Your task to perform on an android device: Go to wifi settings Image 0: 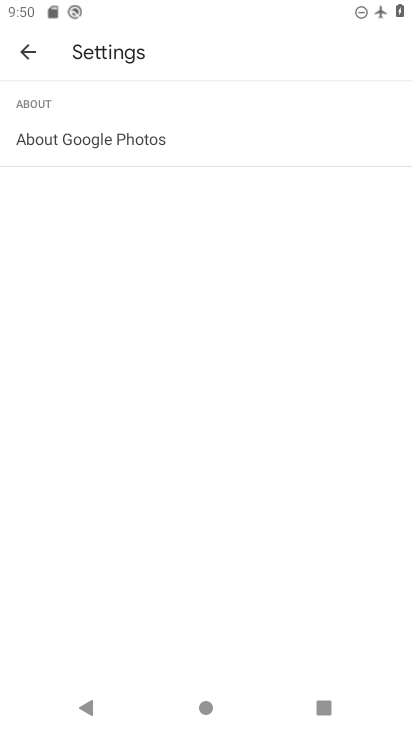
Step 0: drag from (253, 6) to (280, 408)
Your task to perform on an android device: Go to wifi settings Image 1: 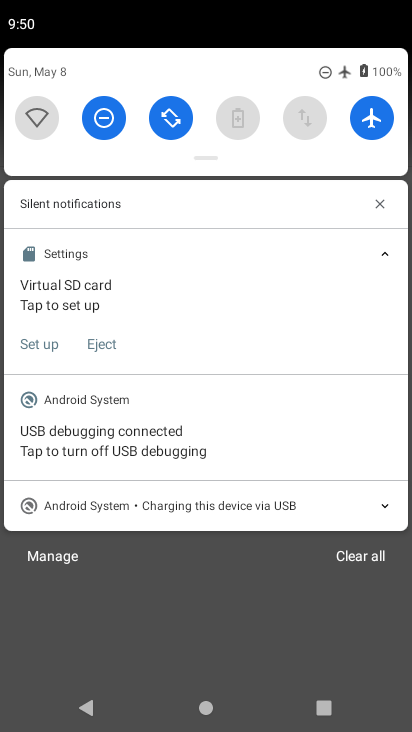
Step 1: click (379, 113)
Your task to perform on an android device: Go to wifi settings Image 2: 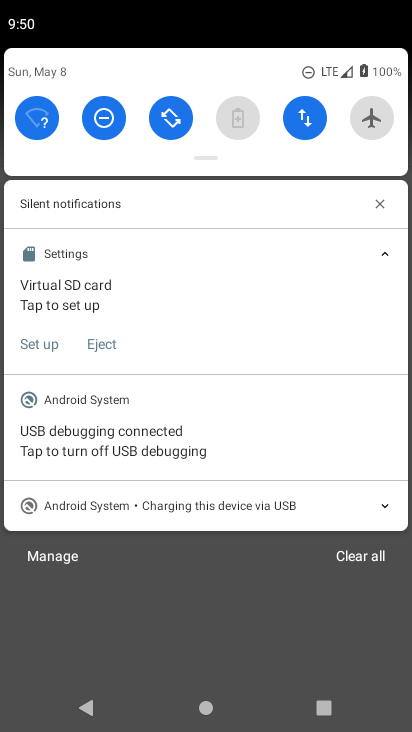
Step 2: click (286, 607)
Your task to perform on an android device: Go to wifi settings Image 3: 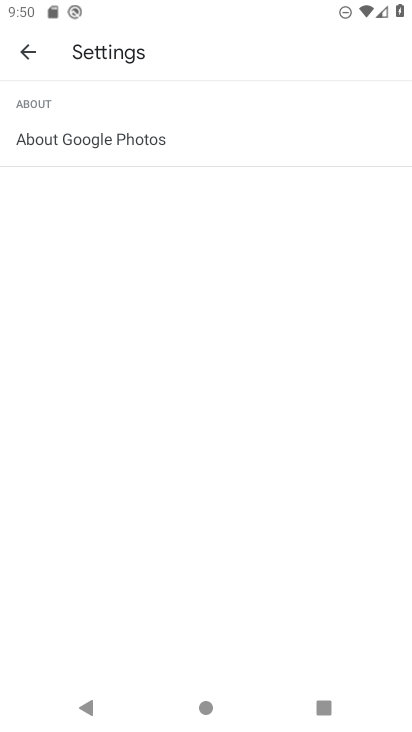
Step 3: press home button
Your task to perform on an android device: Go to wifi settings Image 4: 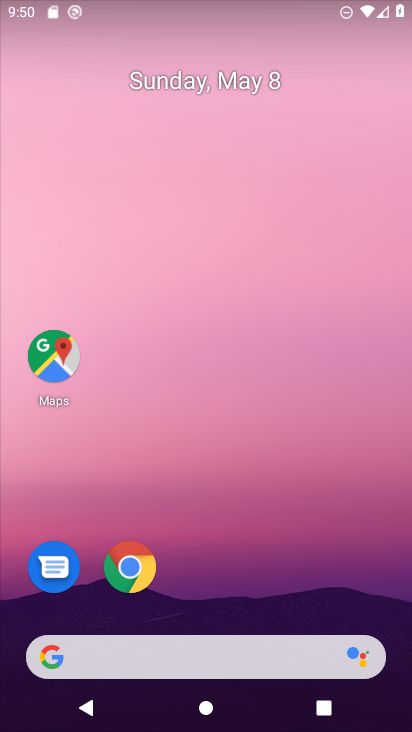
Step 4: drag from (181, 642) to (177, 227)
Your task to perform on an android device: Go to wifi settings Image 5: 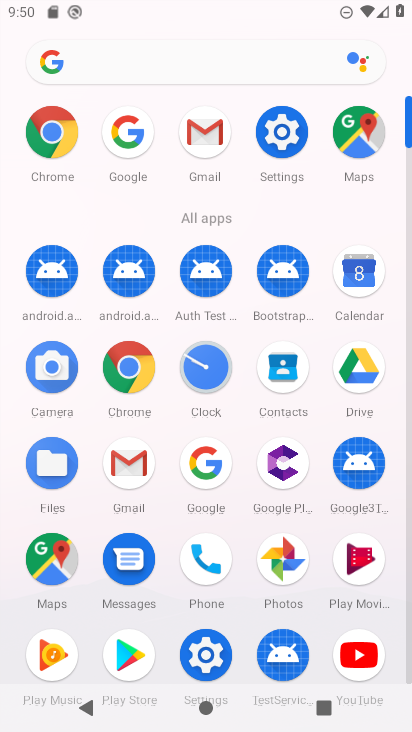
Step 5: click (292, 123)
Your task to perform on an android device: Go to wifi settings Image 6: 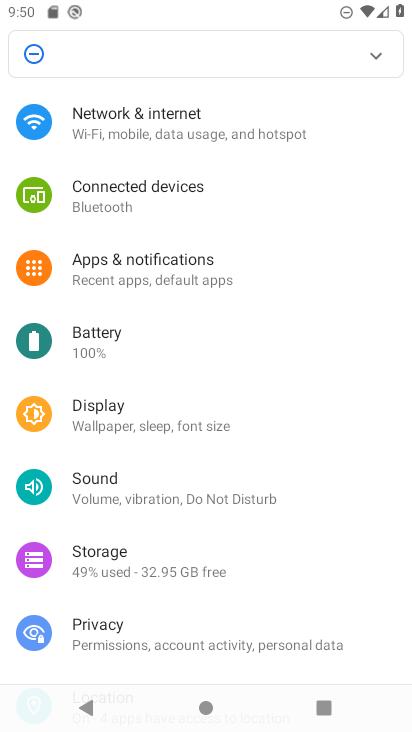
Step 6: click (191, 147)
Your task to perform on an android device: Go to wifi settings Image 7: 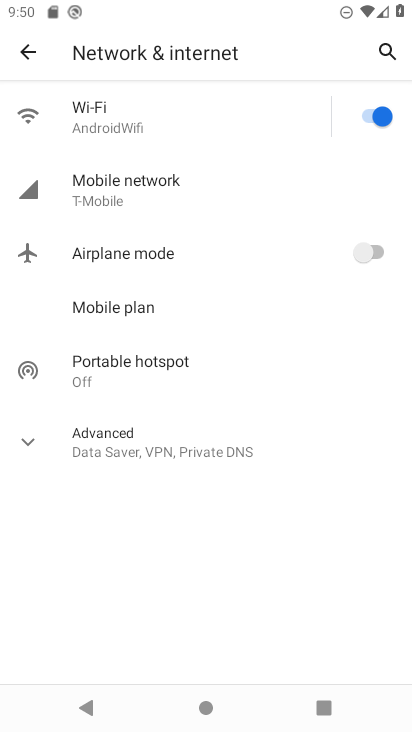
Step 7: click (107, 107)
Your task to perform on an android device: Go to wifi settings Image 8: 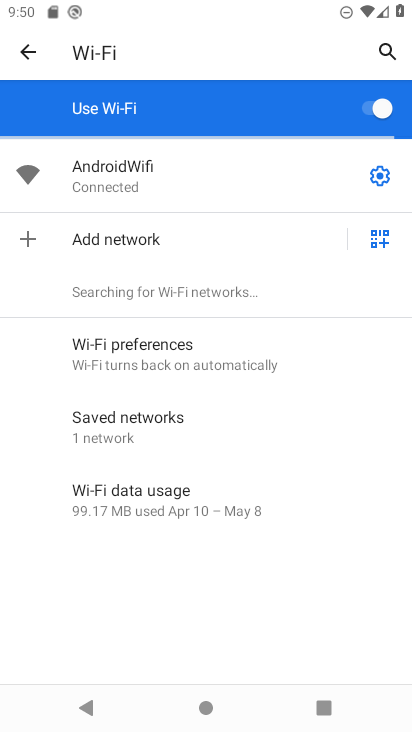
Step 8: click (381, 182)
Your task to perform on an android device: Go to wifi settings Image 9: 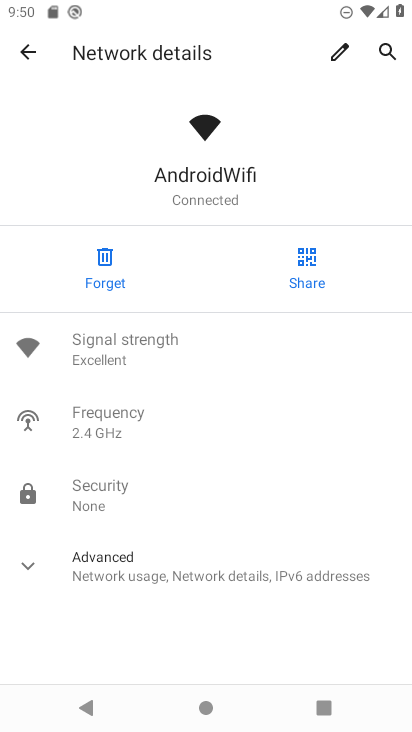
Step 9: click (57, 552)
Your task to perform on an android device: Go to wifi settings Image 10: 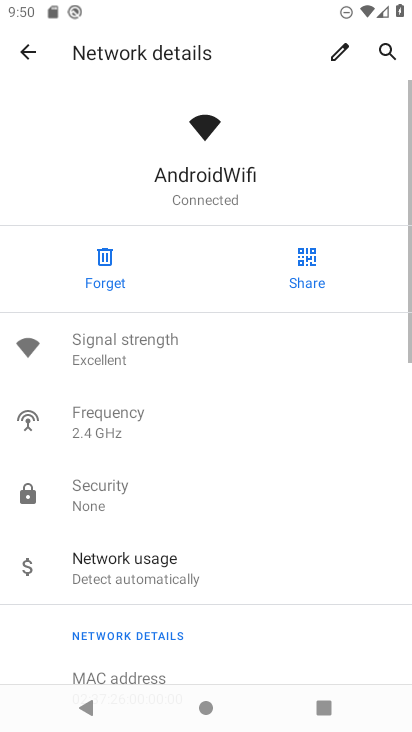
Step 10: task complete